Your task to perform on an android device: open the mobile data screen to see how much data has been used Image 0: 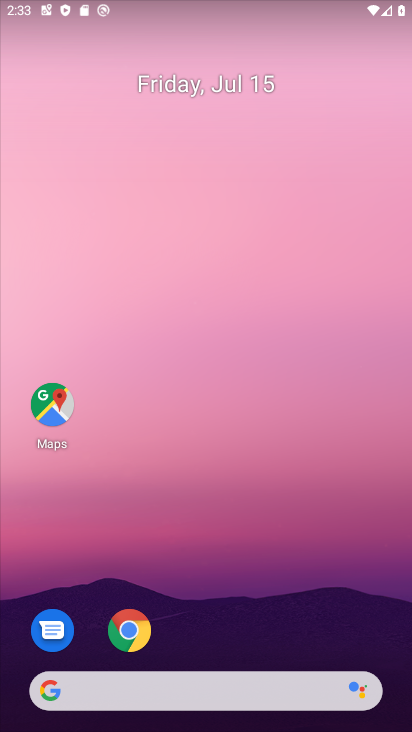
Step 0: drag from (214, 592) to (240, 103)
Your task to perform on an android device: open the mobile data screen to see how much data has been used Image 1: 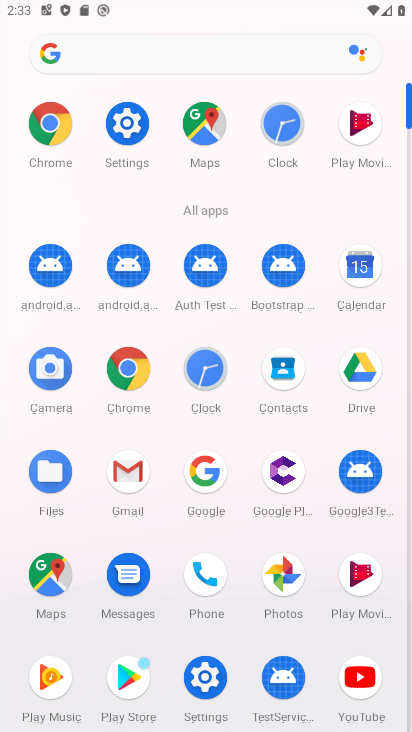
Step 1: click (134, 139)
Your task to perform on an android device: open the mobile data screen to see how much data has been used Image 2: 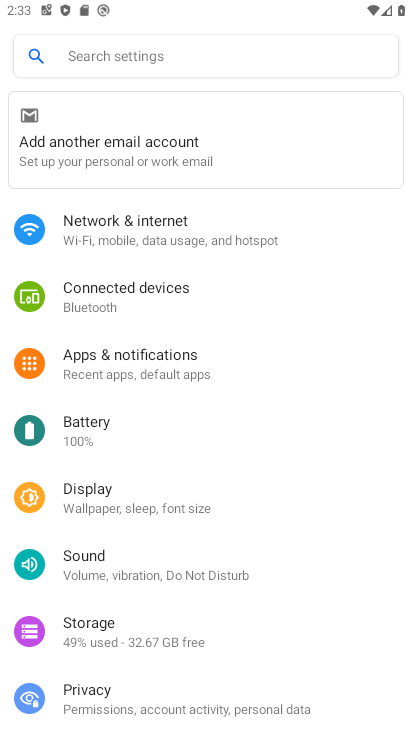
Step 2: click (138, 238)
Your task to perform on an android device: open the mobile data screen to see how much data has been used Image 3: 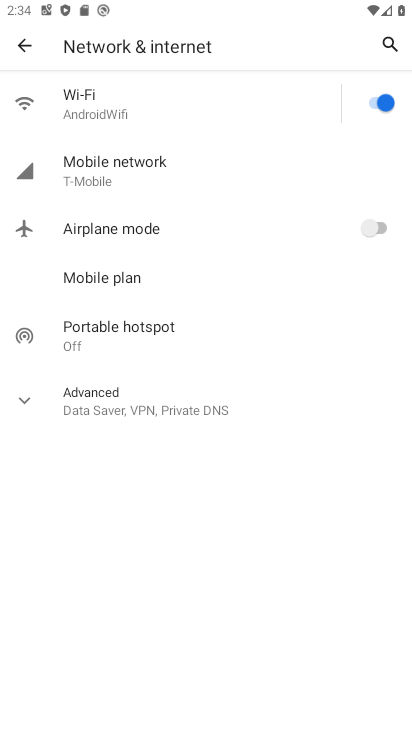
Step 3: click (124, 176)
Your task to perform on an android device: open the mobile data screen to see how much data has been used Image 4: 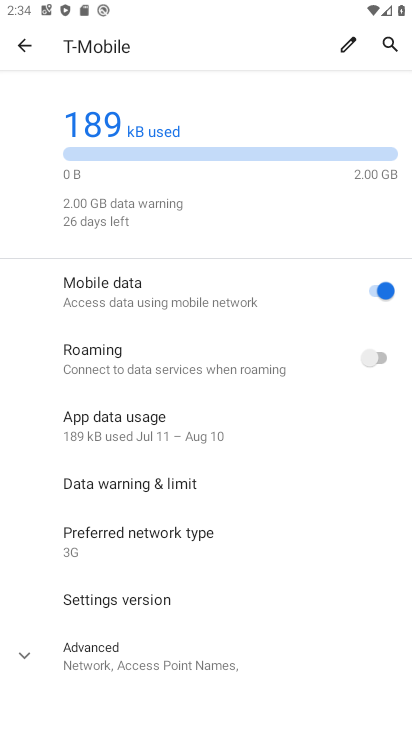
Step 4: click (142, 428)
Your task to perform on an android device: open the mobile data screen to see how much data has been used Image 5: 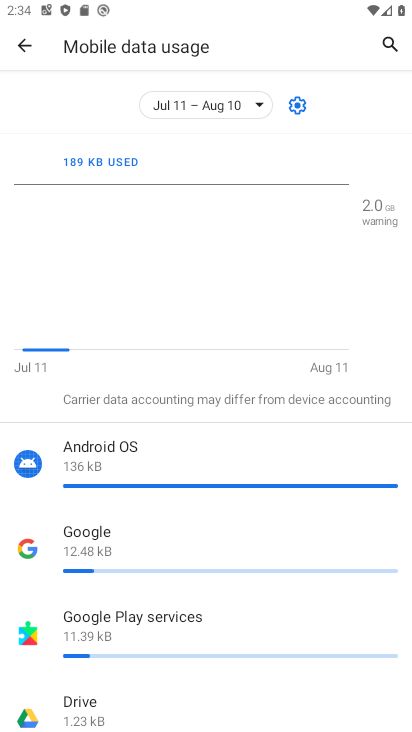
Step 5: task complete